Your task to perform on an android device: check android version Image 0: 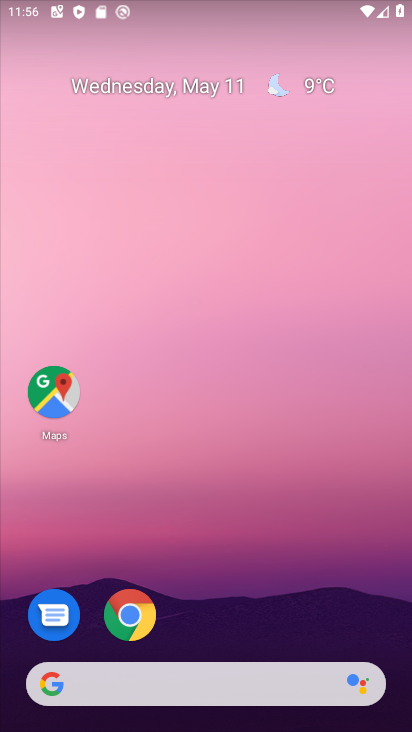
Step 0: drag from (253, 631) to (262, 199)
Your task to perform on an android device: check android version Image 1: 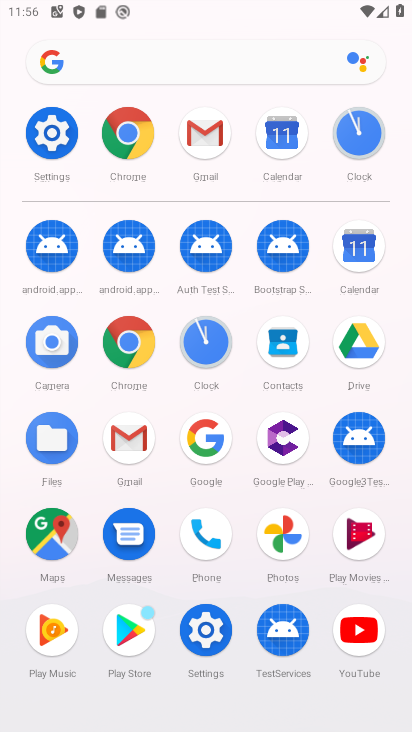
Step 1: click (56, 132)
Your task to perform on an android device: check android version Image 2: 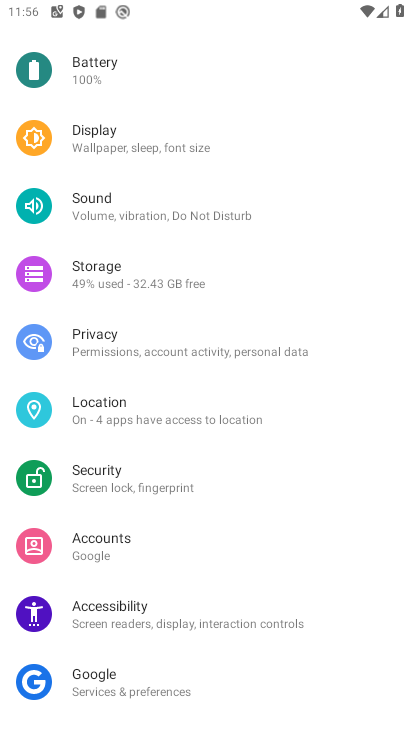
Step 2: drag from (197, 631) to (242, 107)
Your task to perform on an android device: check android version Image 3: 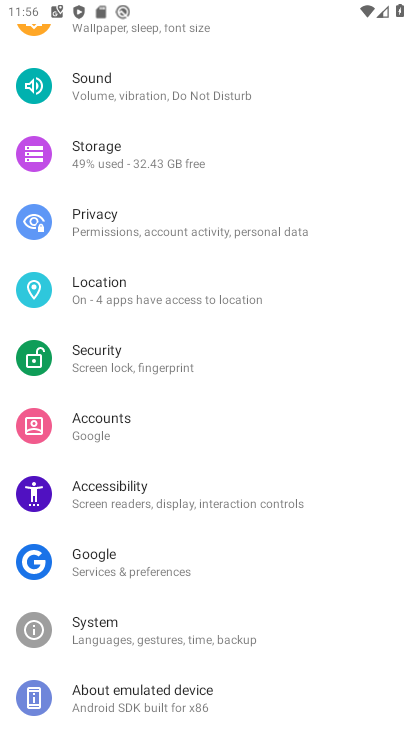
Step 3: click (139, 701)
Your task to perform on an android device: check android version Image 4: 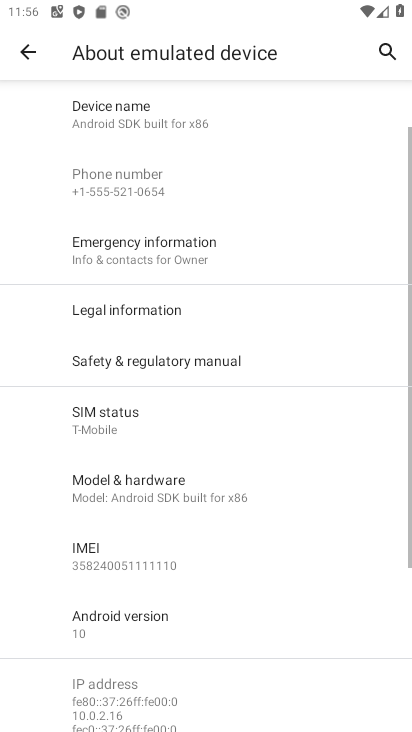
Step 4: drag from (285, 491) to (341, 186)
Your task to perform on an android device: check android version Image 5: 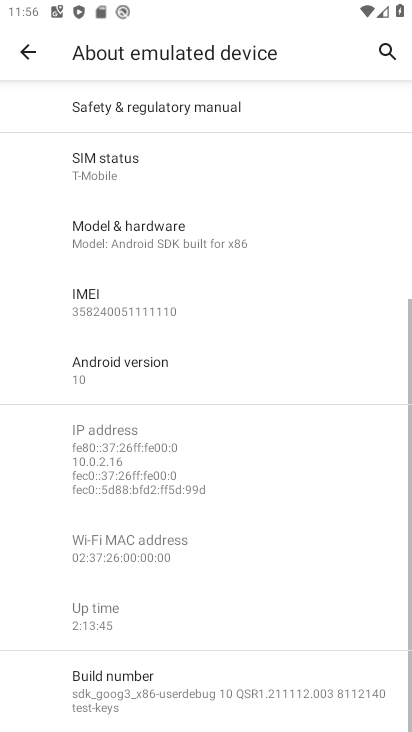
Step 5: click (148, 386)
Your task to perform on an android device: check android version Image 6: 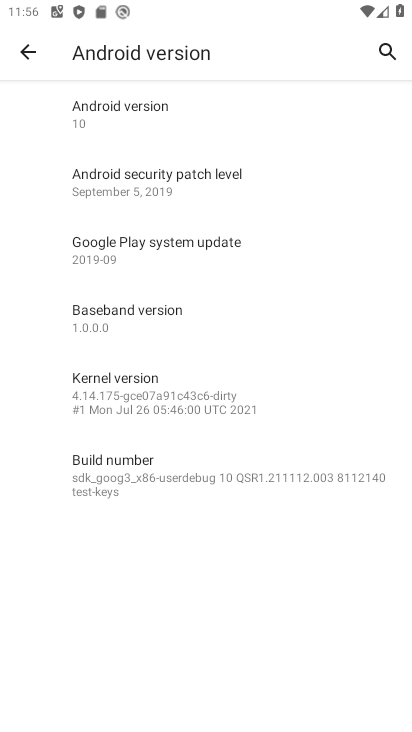
Step 6: task complete